Your task to perform on an android device: choose inbox layout in the gmail app Image 0: 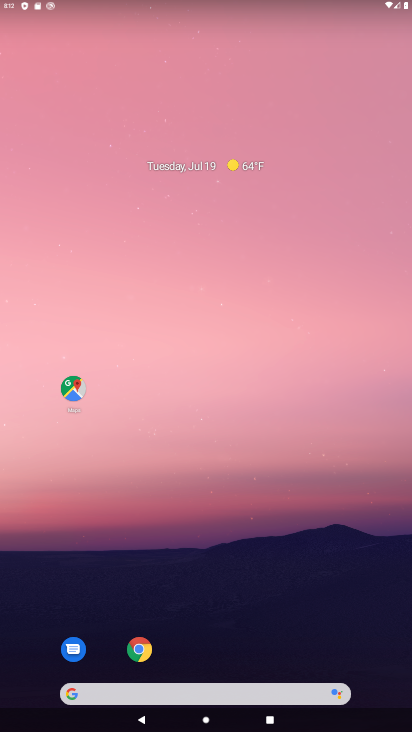
Step 0: drag from (189, 648) to (193, 35)
Your task to perform on an android device: choose inbox layout in the gmail app Image 1: 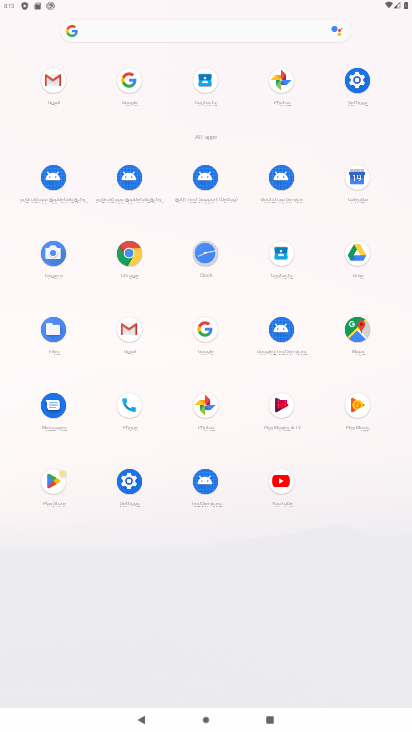
Step 1: click (122, 318)
Your task to perform on an android device: choose inbox layout in the gmail app Image 2: 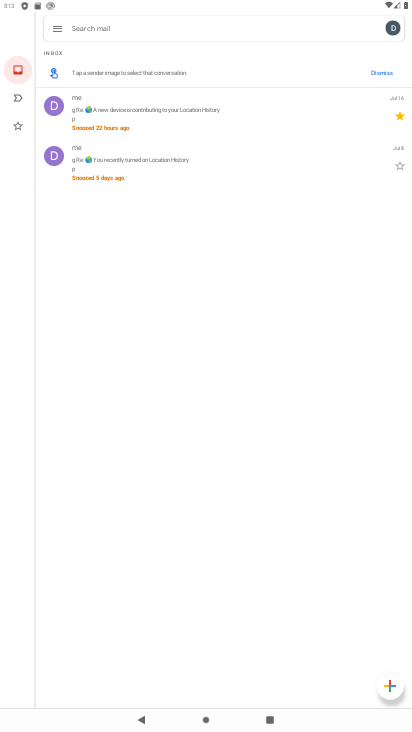
Step 2: click (63, 36)
Your task to perform on an android device: choose inbox layout in the gmail app Image 3: 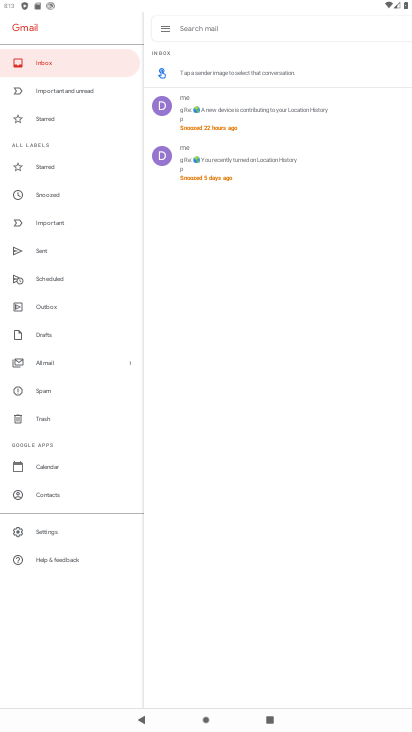
Step 3: click (63, 534)
Your task to perform on an android device: choose inbox layout in the gmail app Image 4: 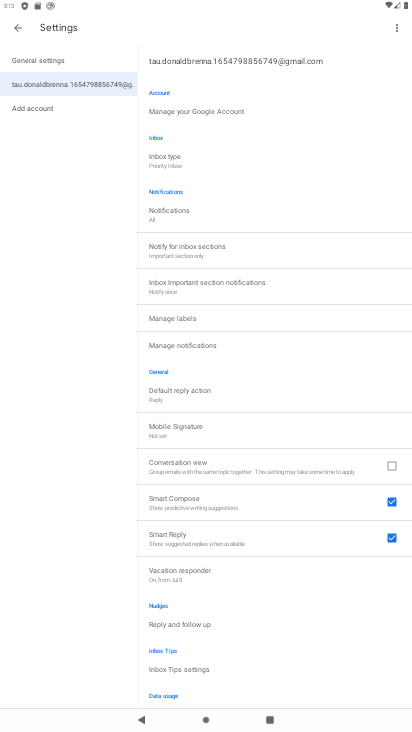
Step 4: click (160, 157)
Your task to perform on an android device: choose inbox layout in the gmail app Image 5: 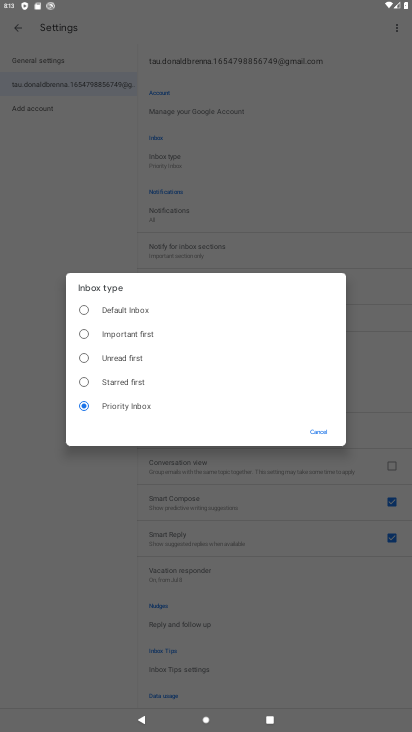
Step 5: click (122, 316)
Your task to perform on an android device: choose inbox layout in the gmail app Image 6: 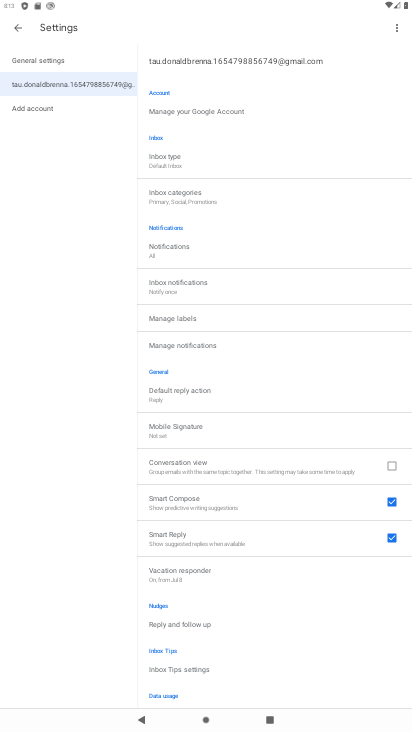
Step 6: task complete